Your task to perform on an android device: open app "Spotify: Music and Podcasts" Image 0: 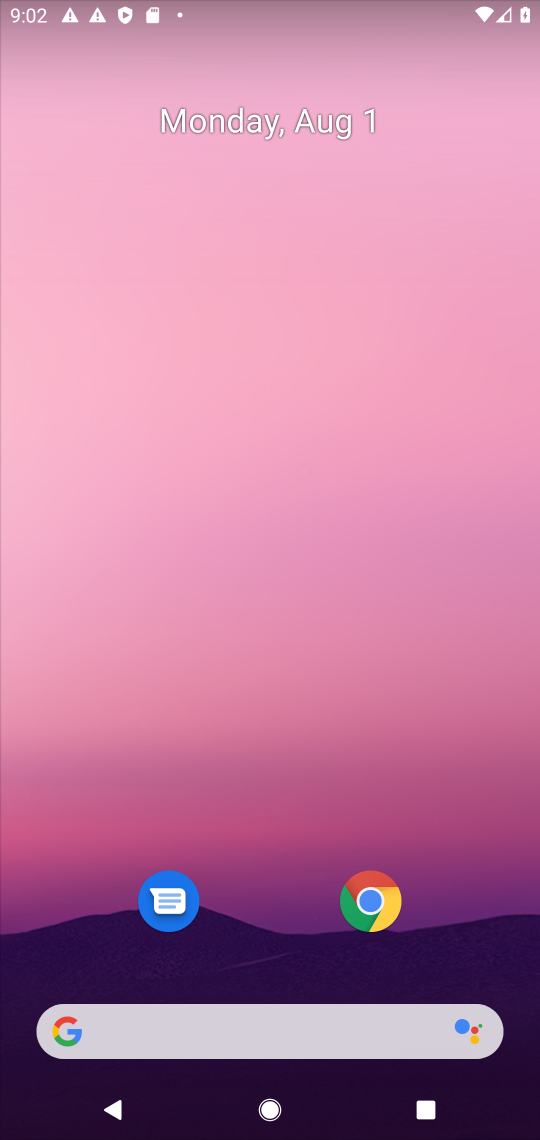
Step 0: drag from (271, 920) to (359, 10)
Your task to perform on an android device: open app "Spotify: Music and Podcasts" Image 1: 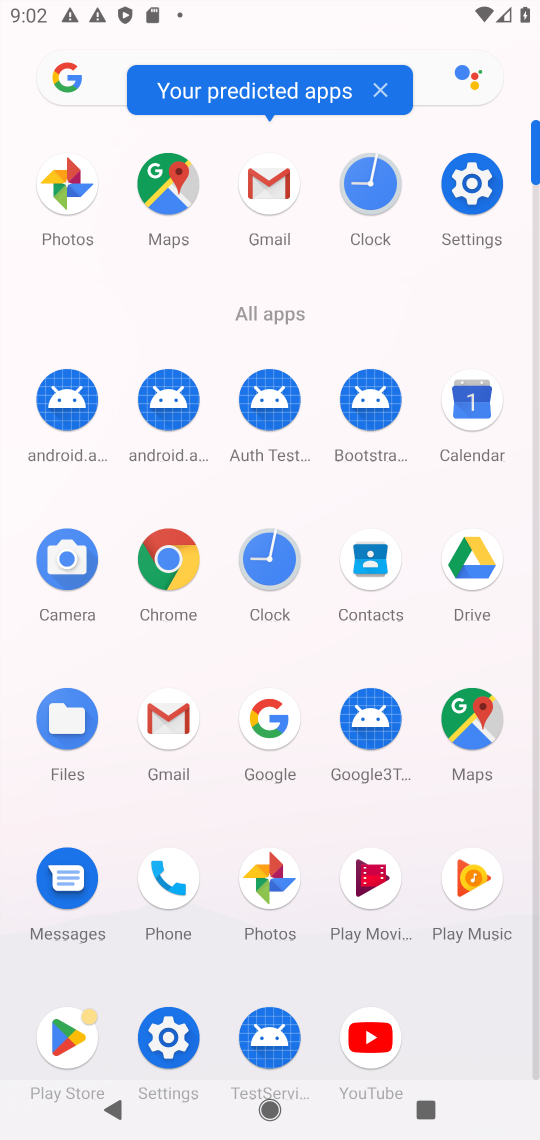
Step 1: click (62, 1018)
Your task to perform on an android device: open app "Spotify: Music and Podcasts" Image 2: 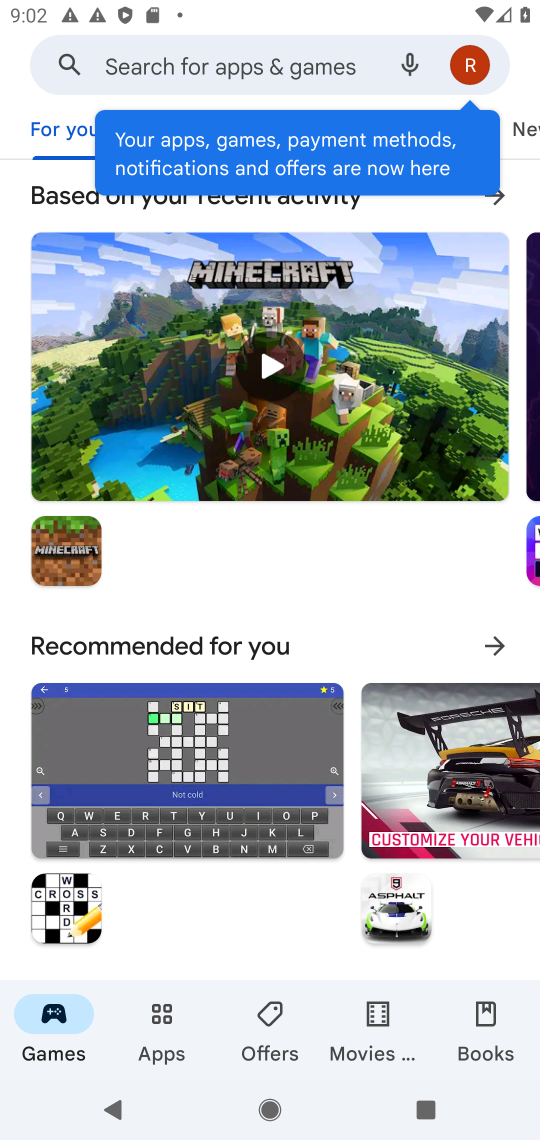
Step 2: click (337, 66)
Your task to perform on an android device: open app "Spotify: Music and Podcasts" Image 3: 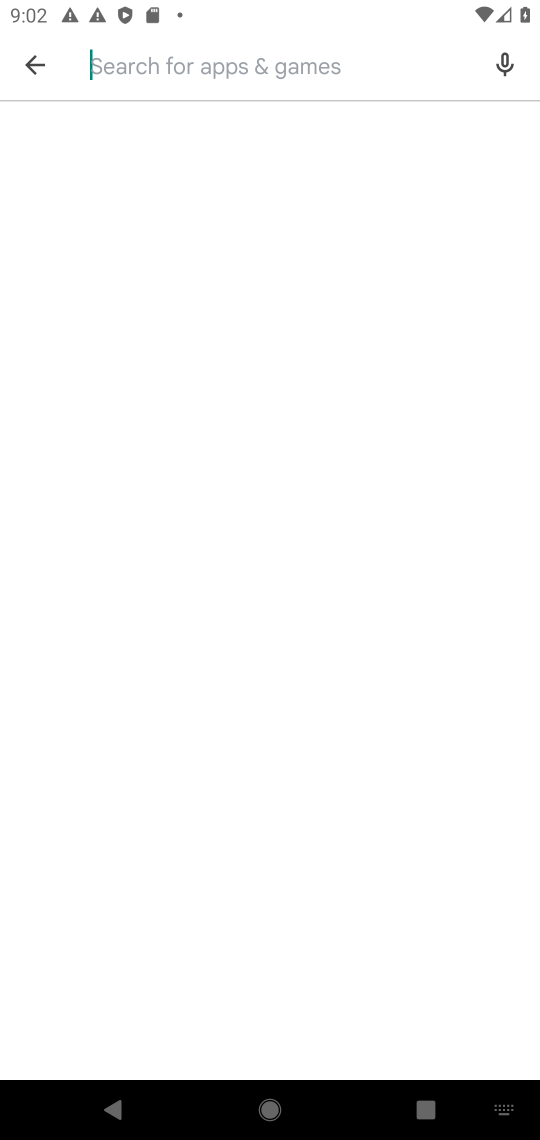
Step 3: type "spotify: music and podcasts"
Your task to perform on an android device: open app "Spotify: Music and Podcasts" Image 4: 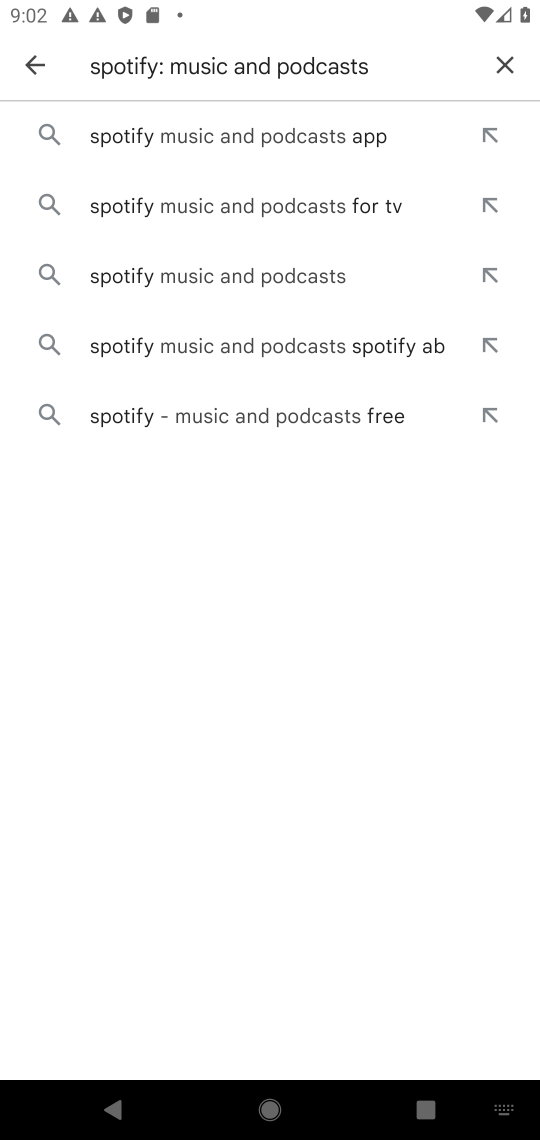
Step 4: click (215, 134)
Your task to perform on an android device: open app "Spotify: Music and Podcasts" Image 5: 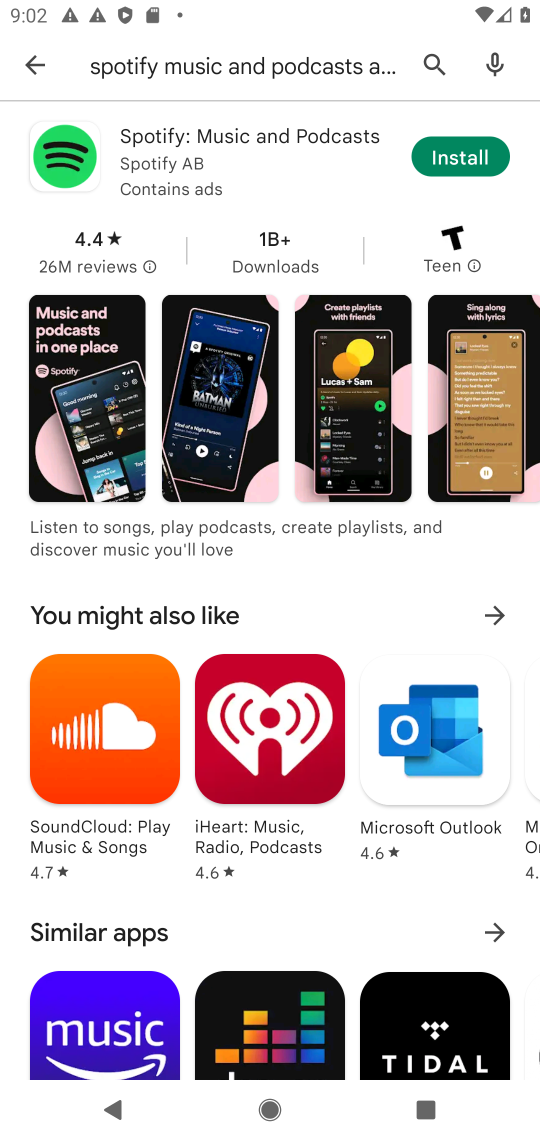
Step 5: click (246, 141)
Your task to perform on an android device: open app "Spotify: Music and Podcasts" Image 6: 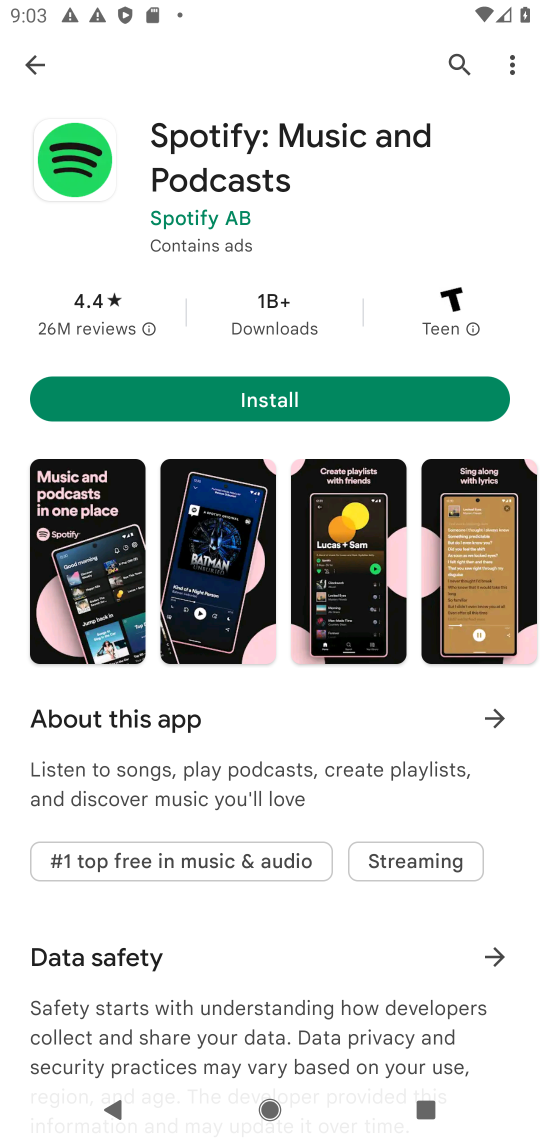
Step 6: task complete